Your task to perform on an android device: read, delete, or share a saved page in the chrome app Image 0: 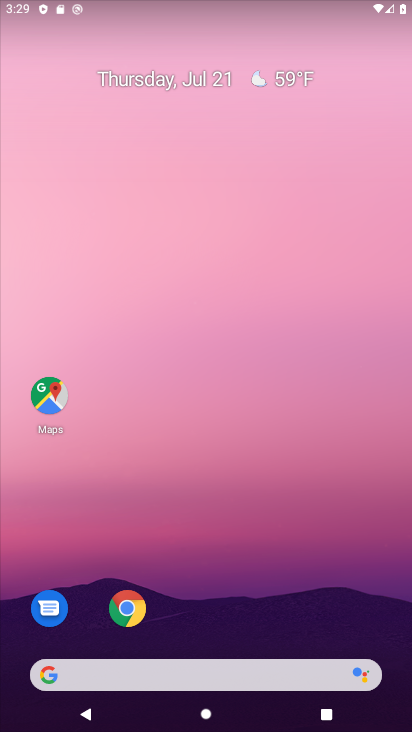
Step 0: drag from (305, 670) to (375, 43)
Your task to perform on an android device: read, delete, or share a saved page in the chrome app Image 1: 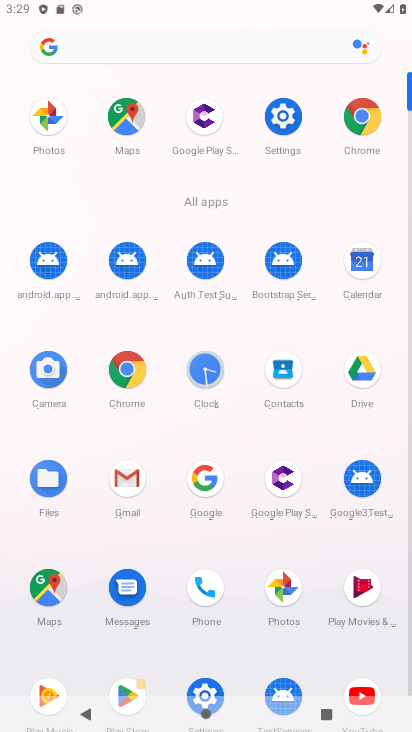
Step 1: click (128, 367)
Your task to perform on an android device: read, delete, or share a saved page in the chrome app Image 2: 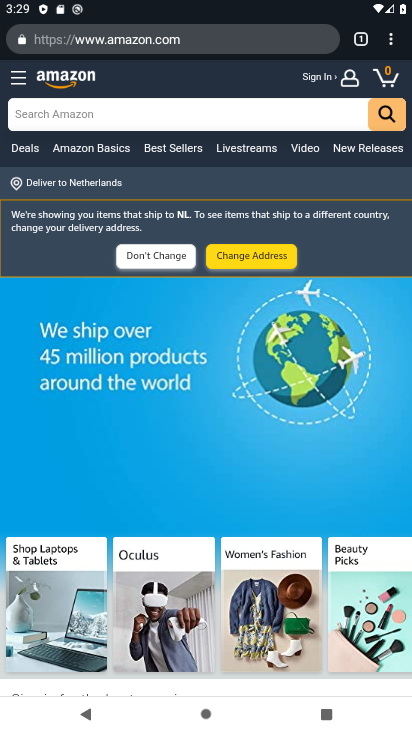
Step 2: task complete